Your task to perform on an android device: Search for the best rated kitchen reno kits on Lowes.com Image 0: 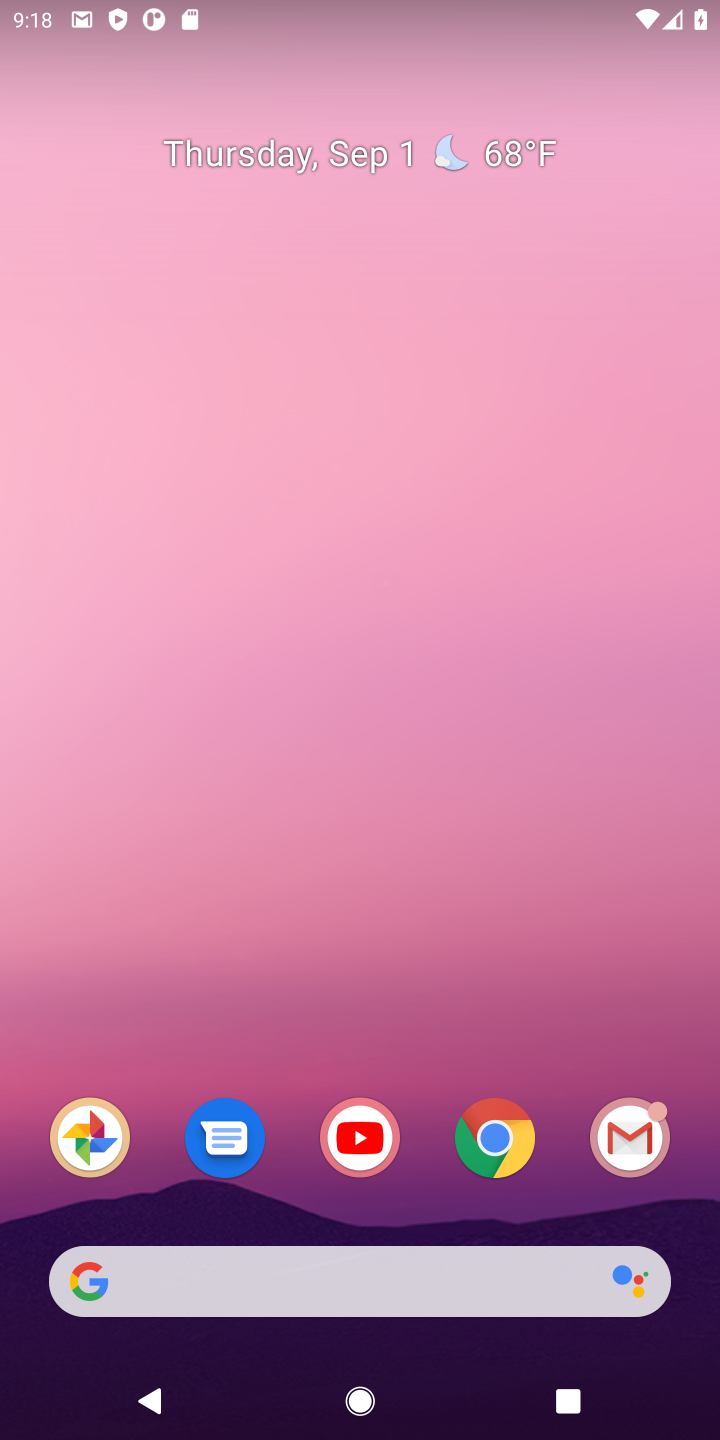
Step 0: click (496, 1140)
Your task to perform on an android device: Search for the best rated kitchen reno kits on Lowes.com Image 1: 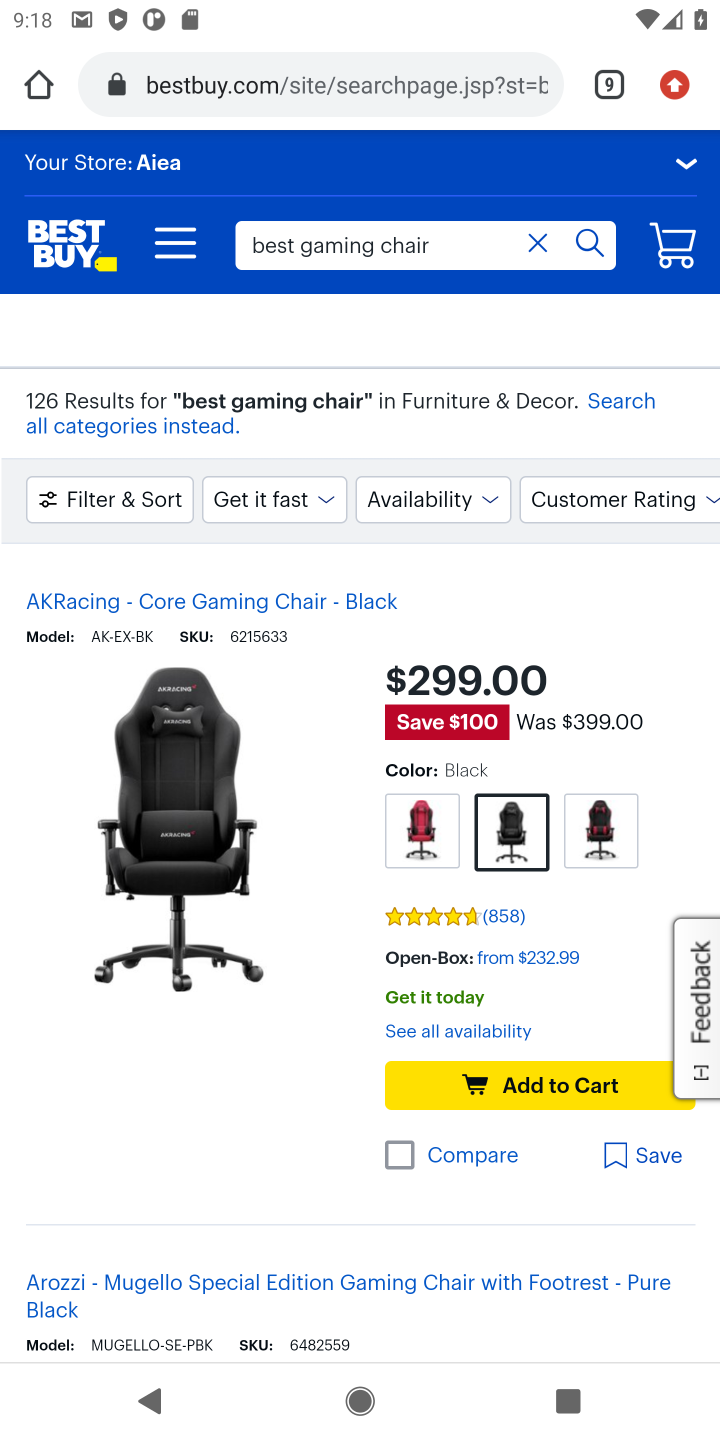
Step 1: click (608, 89)
Your task to perform on an android device: Search for the best rated kitchen reno kits on Lowes.com Image 2: 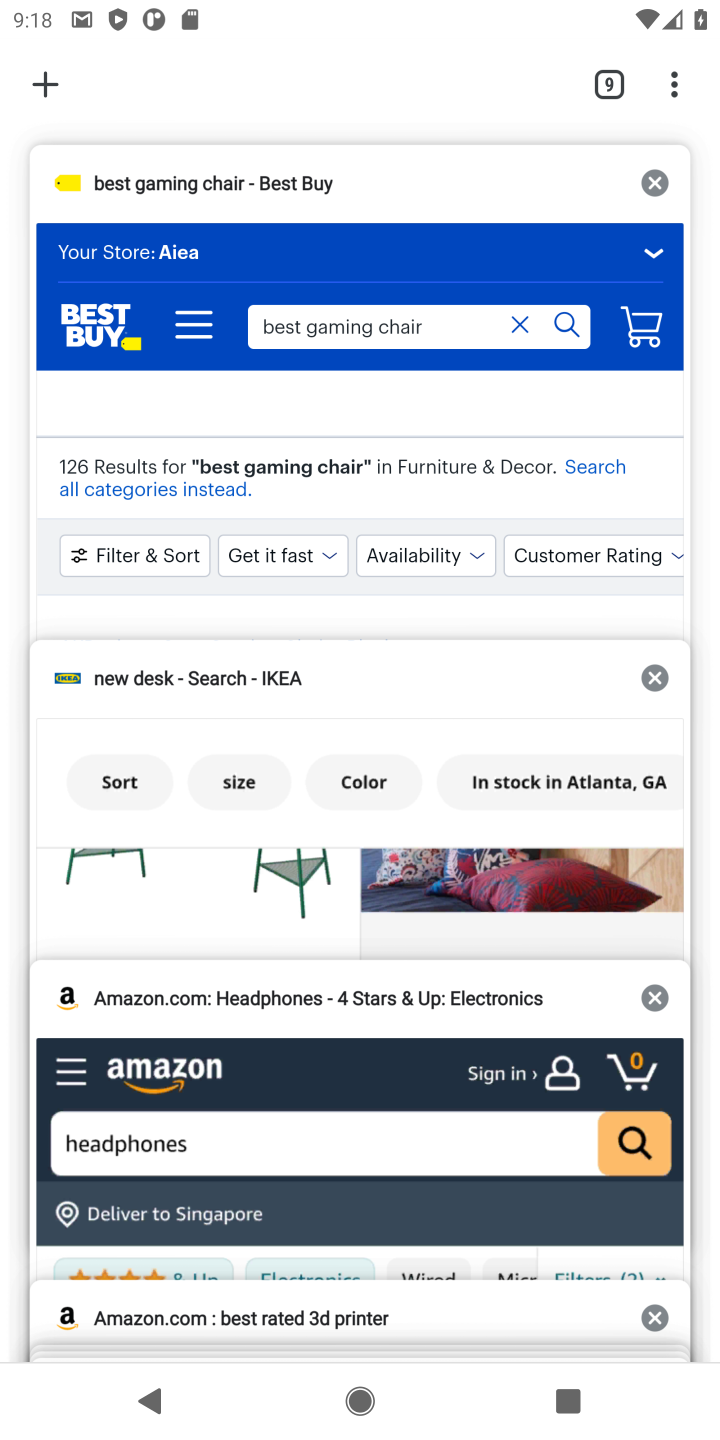
Step 2: drag from (324, 1091) to (327, 274)
Your task to perform on an android device: Search for the best rated kitchen reno kits on Lowes.com Image 3: 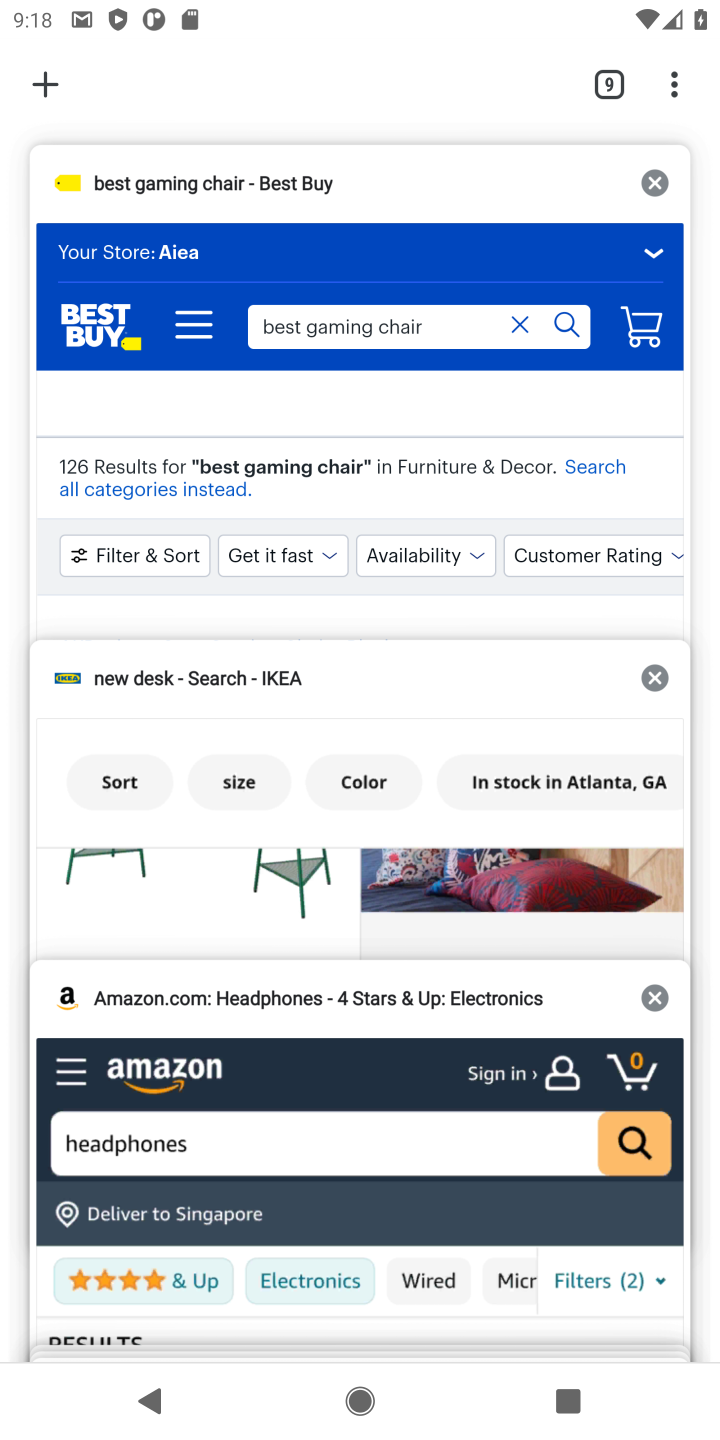
Step 3: drag from (153, 994) to (153, 223)
Your task to perform on an android device: Search for the best rated kitchen reno kits on Lowes.com Image 4: 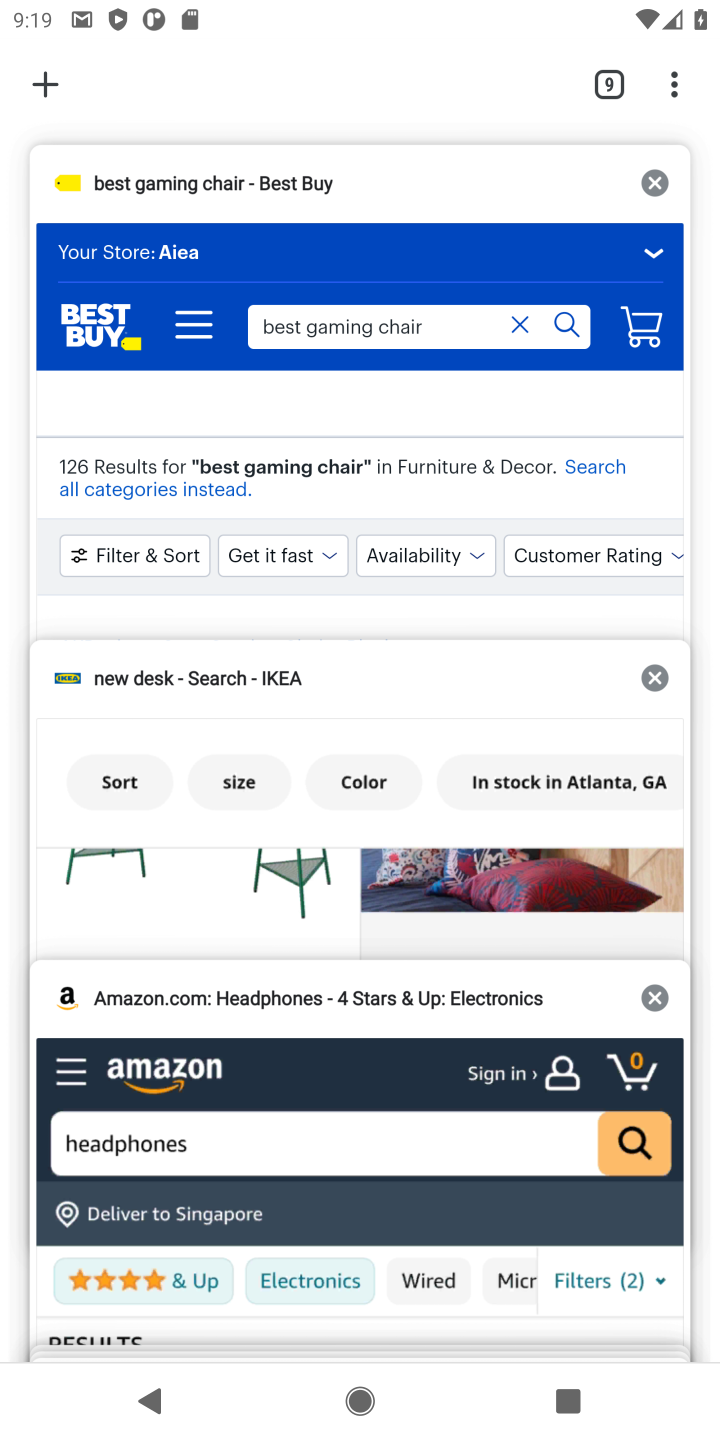
Step 4: drag from (394, 787) to (269, 171)
Your task to perform on an android device: Search for the best rated kitchen reno kits on Lowes.com Image 5: 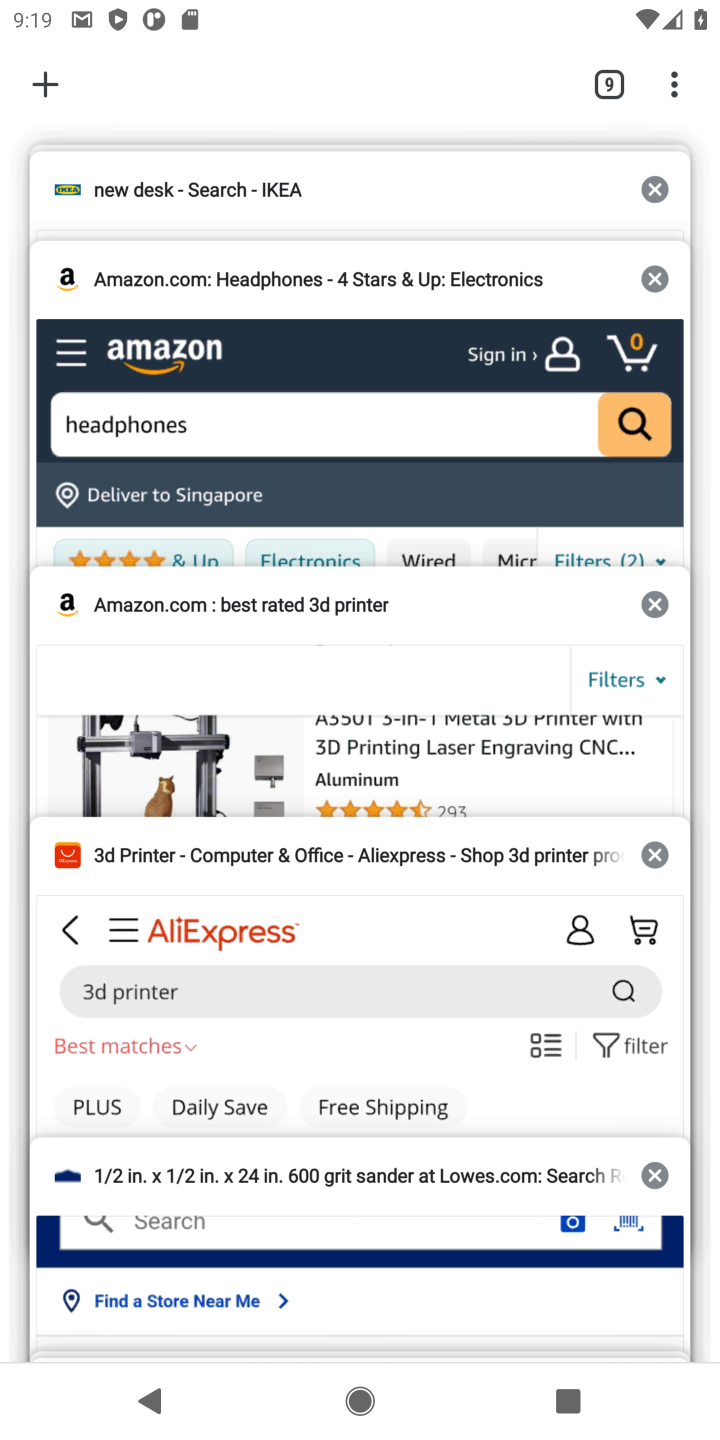
Step 5: drag from (249, 1098) to (210, 492)
Your task to perform on an android device: Search for the best rated kitchen reno kits on Lowes.com Image 6: 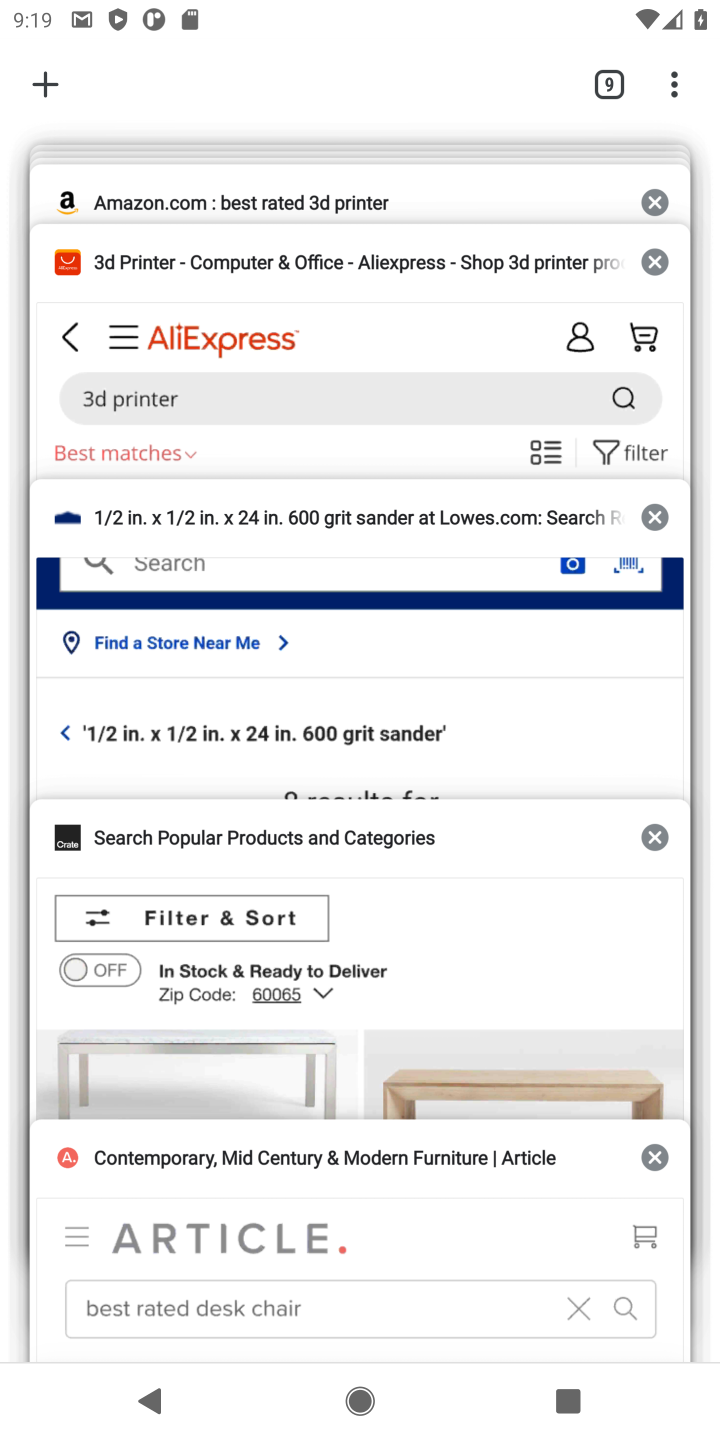
Step 6: click (393, 523)
Your task to perform on an android device: Search for the best rated kitchen reno kits on Lowes.com Image 7: 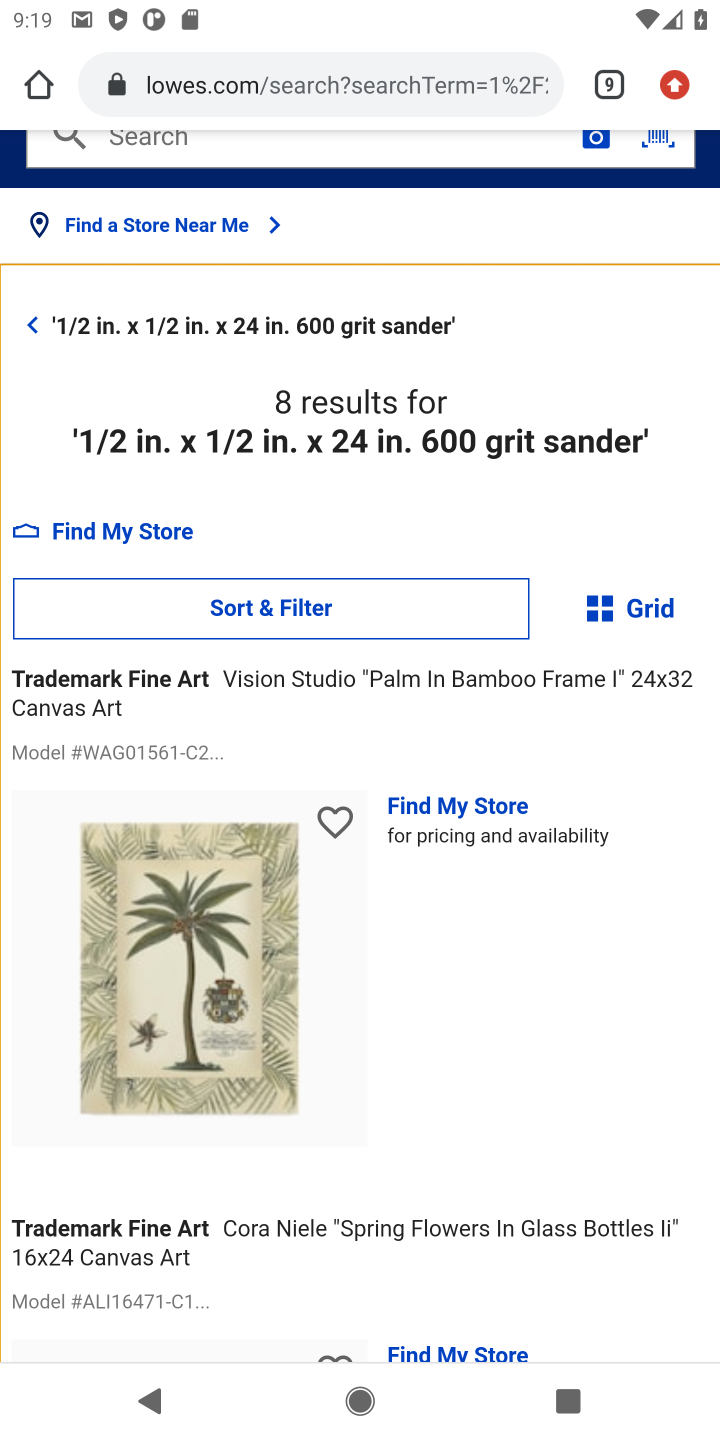
Step 7: click (437, 152)
Your task to perform on an android device: Search for the best rated kitchen reno kits on Lowes.com Image 8: 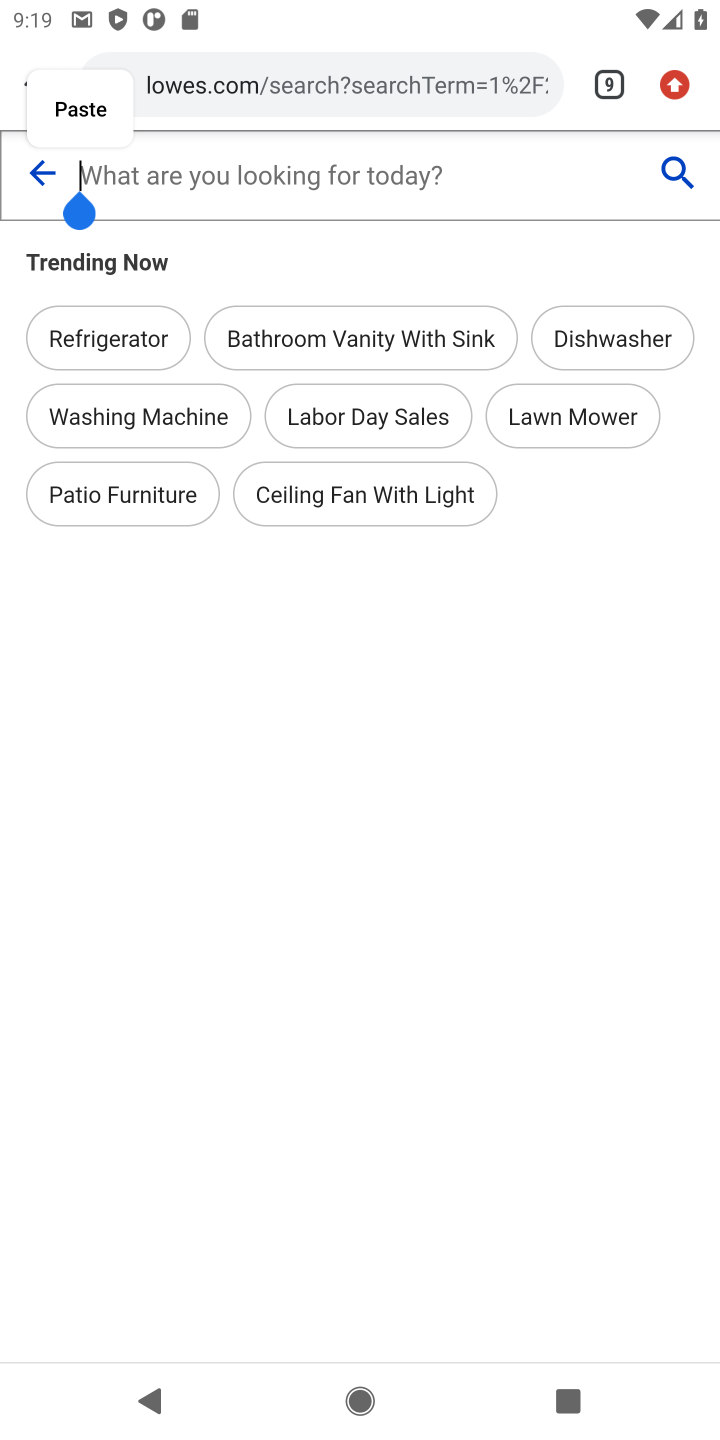
Step 8: drag from (603, 1429) to (660, 1389)
Your task to perform on an android device: Search for the best rated kitchen reno kits on Lowes.com Image 9: 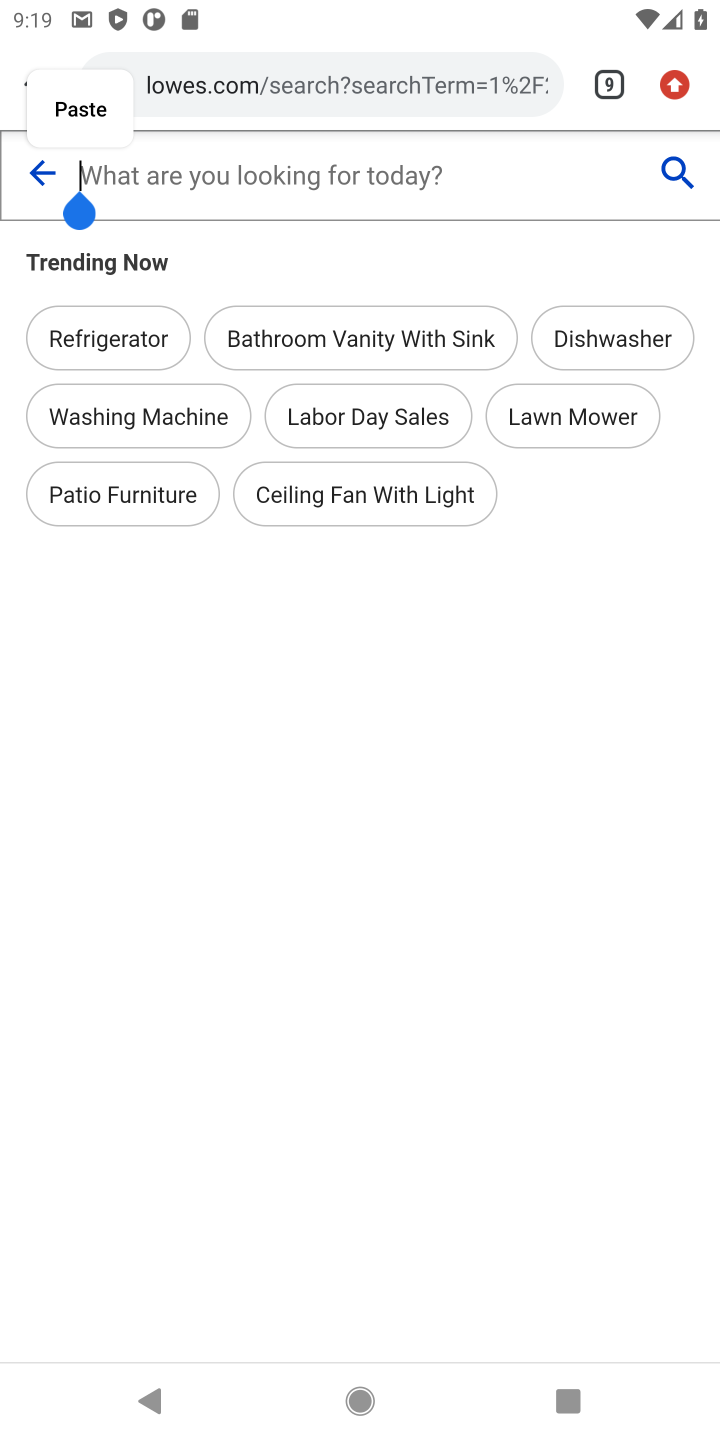
Step 9: type "best rated kitchen reno kits "
Your task to perform on an android device: Search for the best rated kitchen reno kits on Lowes.com Image 10: 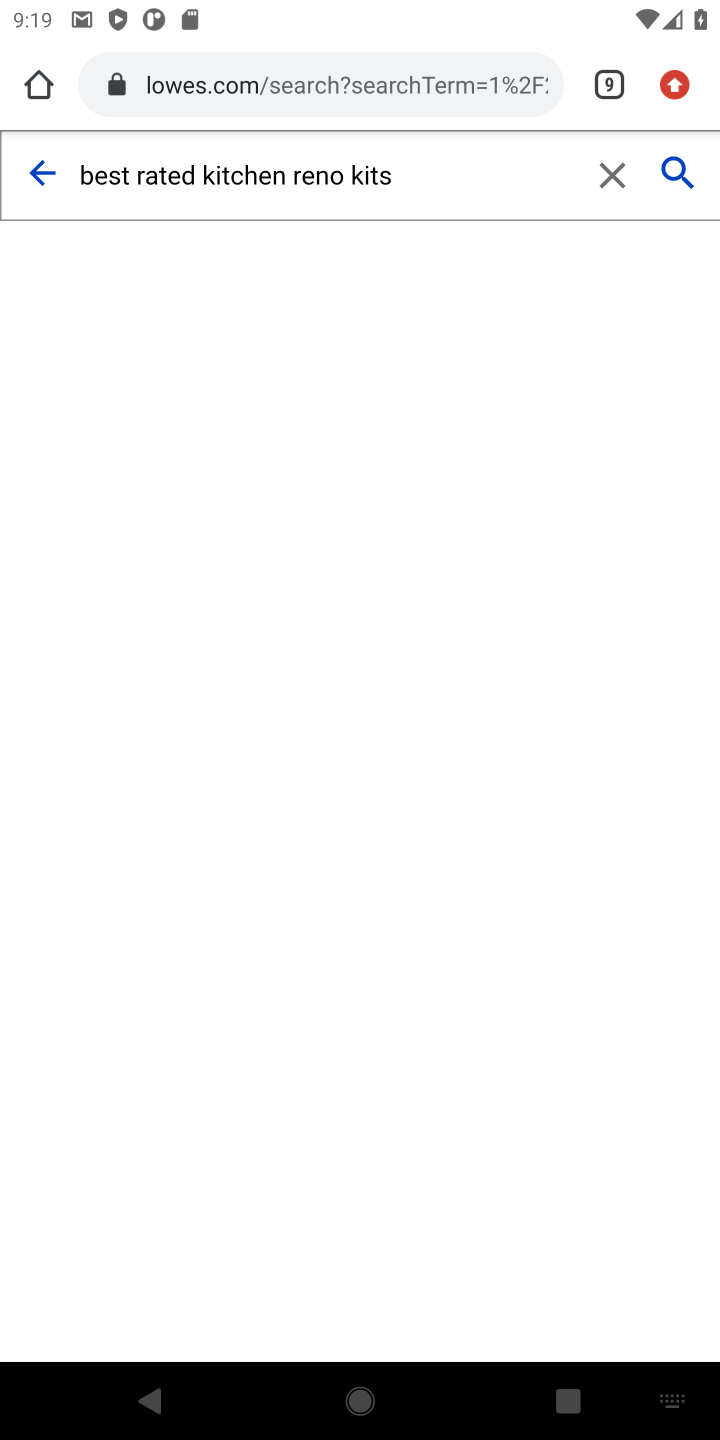
Step 10: click (679, 170)
Your task to perform on an android device: Search for the best rated kitchen reno kits on Lowes.com Image 11: 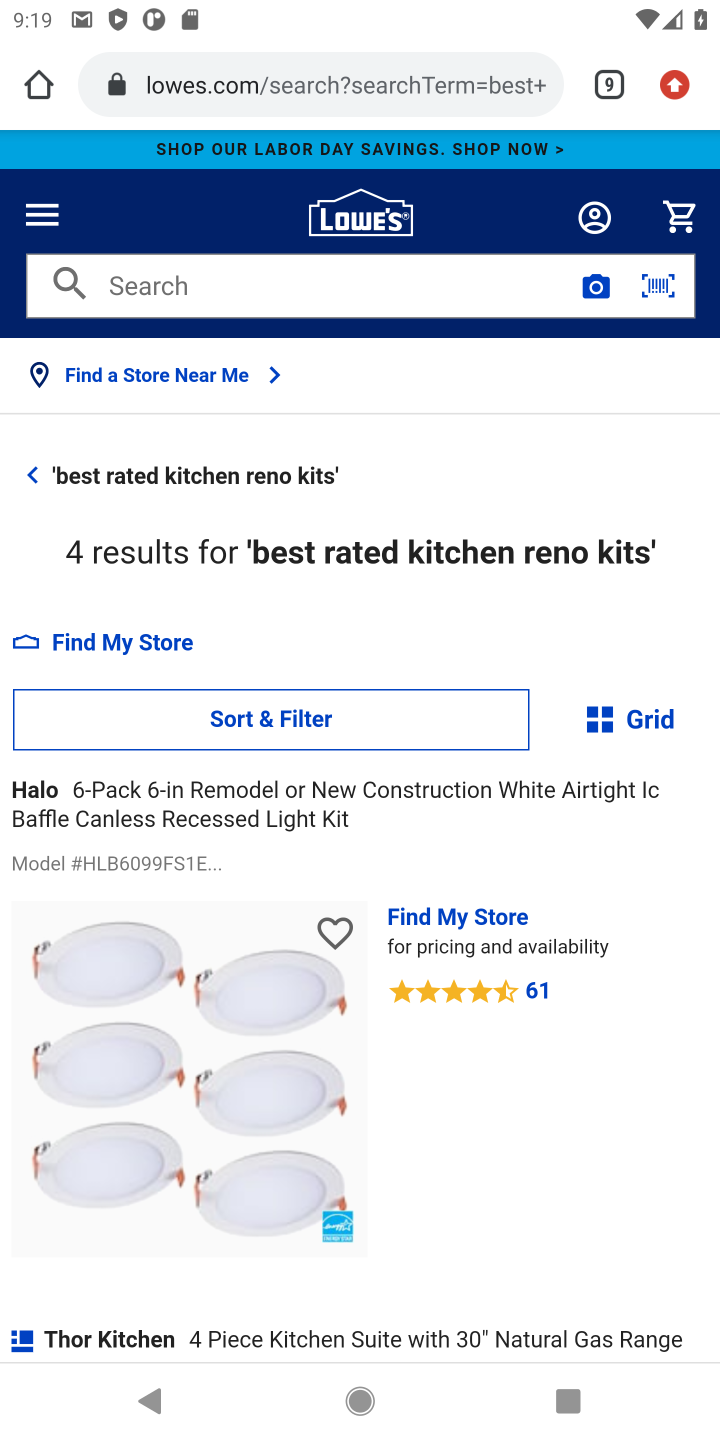
Step 11: click (226, 553)
Your task to perform on an android device: Search for the best rated kitchen reno kits on Lowes.com Image 12: 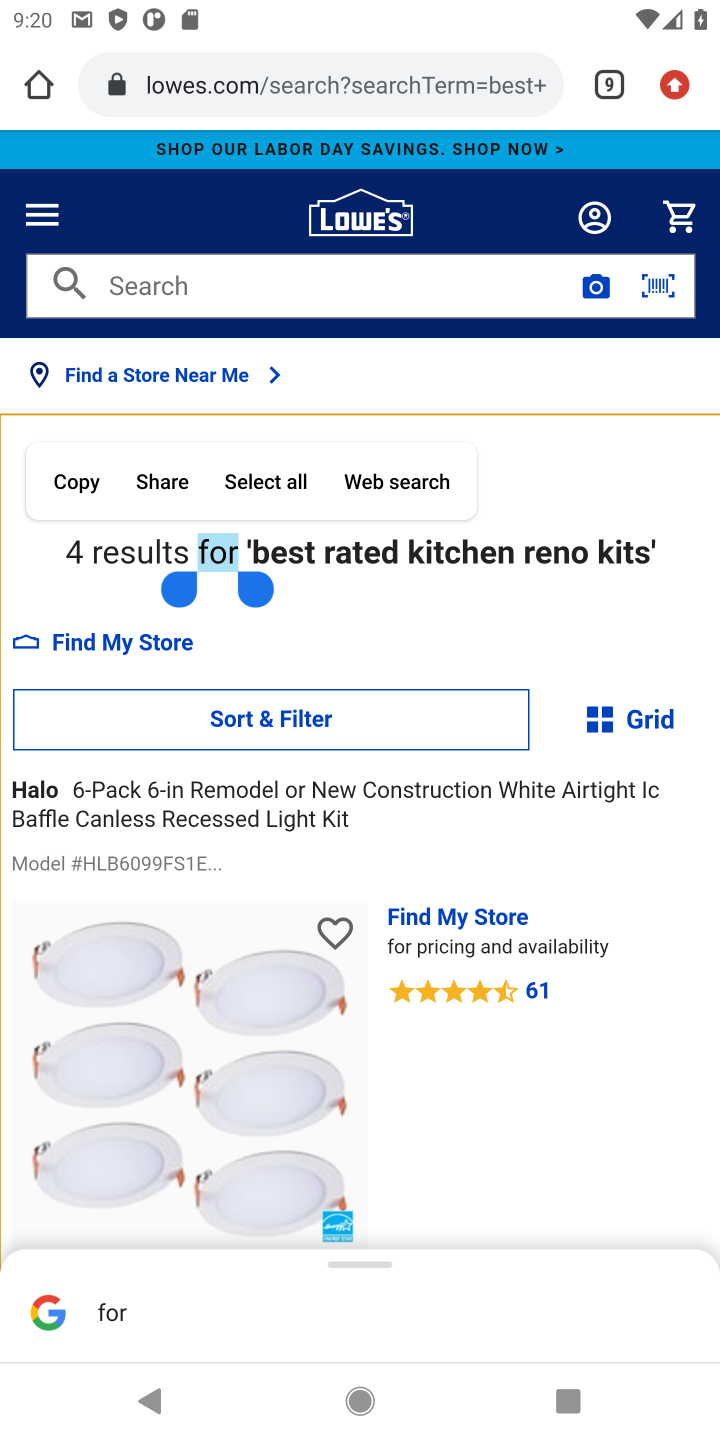
Step 12: click (508, 1115)
Your task to perform on an android device: Search for the best rated kitchen reno kits on Lowes.com Image 13: 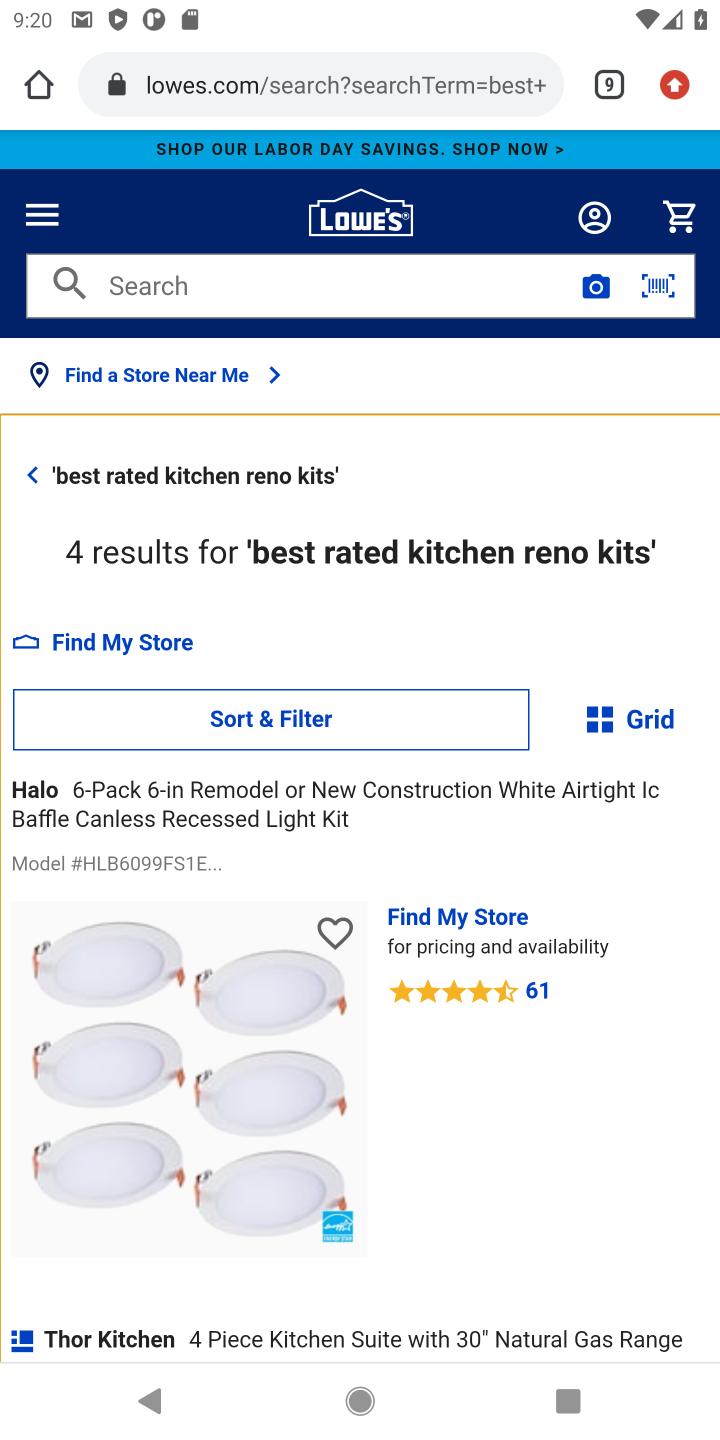
Step 13: task complete